Your task to perform on an android device: refresh tabs in the chrome app Image 0: 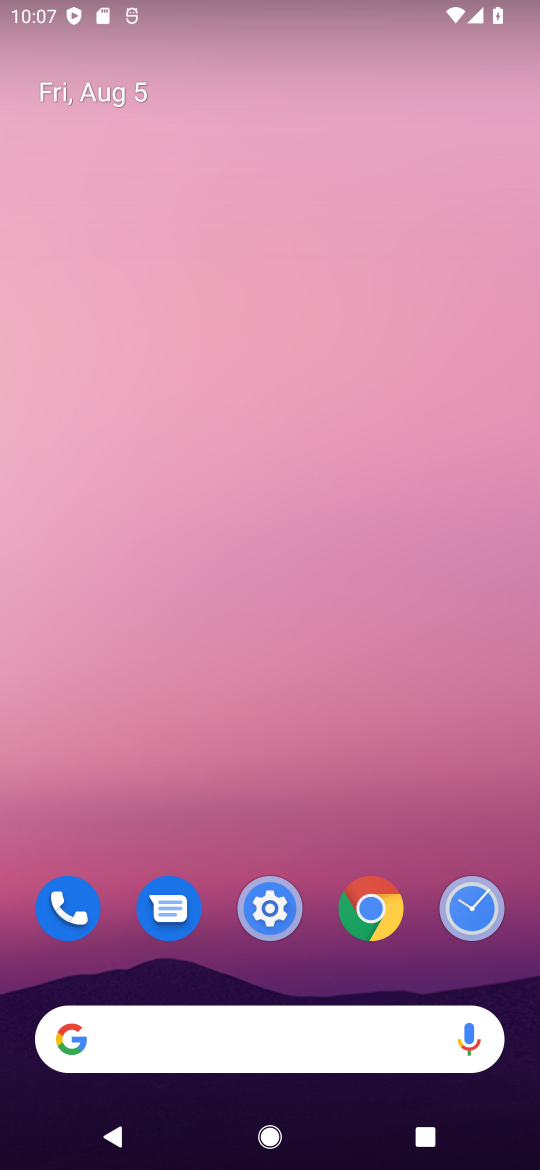
Step 0: click (383, 920)
Your task to perform on an android device: refresh tabs in the chrome app Image 1: 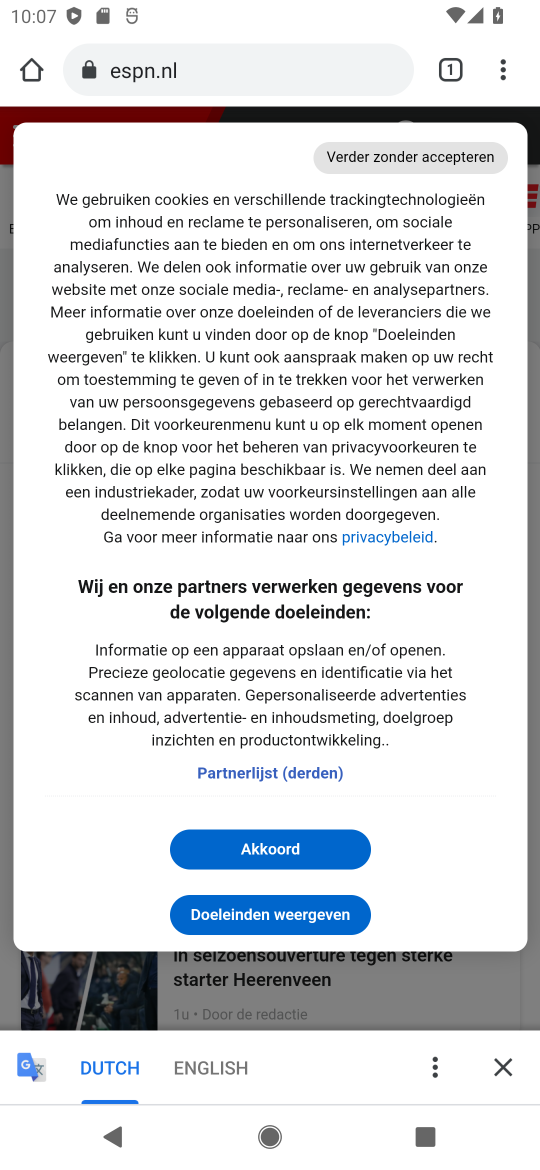
Step 1: task complete